Your task to perform on an android device: delete a single message in the gmail app Image 0: 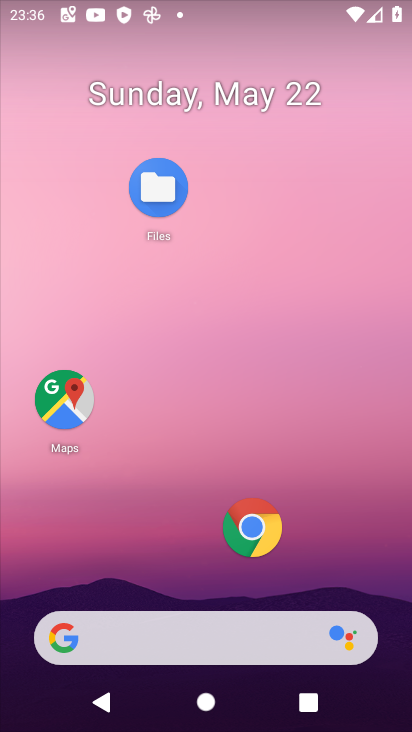
Step 0: drag from (317, 558) to (247, 259)
Your task to perform on an android device: delete a single message in the gmail app Image 1: 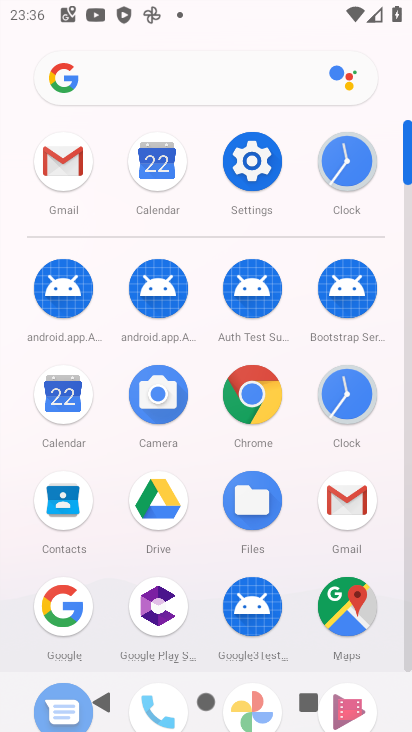
Step 1: click (59, 166)
Your task to perform on an android device: delete a single message in the gmail app Image 2: 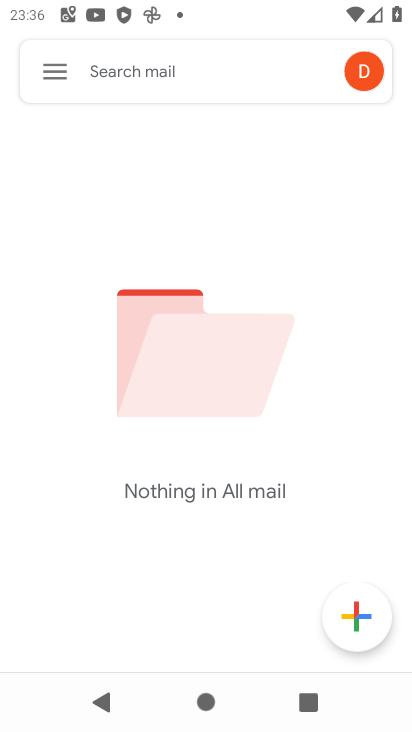
Step 2: click (60, 65)
Your task to perform on an android device: delete a single message in the gmail app Image 3: 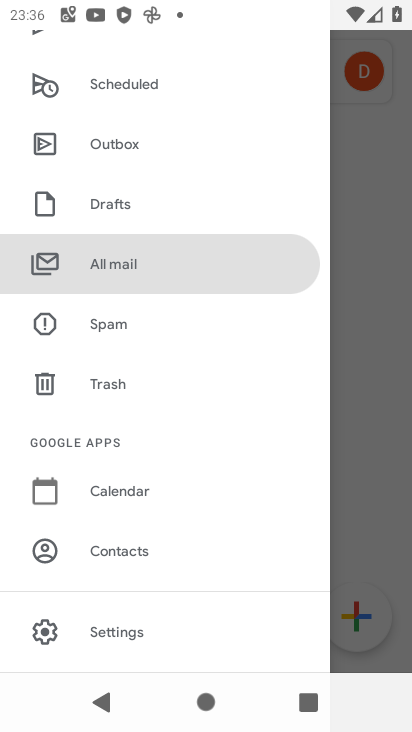
Step 3: click (152, 261)
Your task to perform on an android device: delete a single message in the gmail app Image 4: 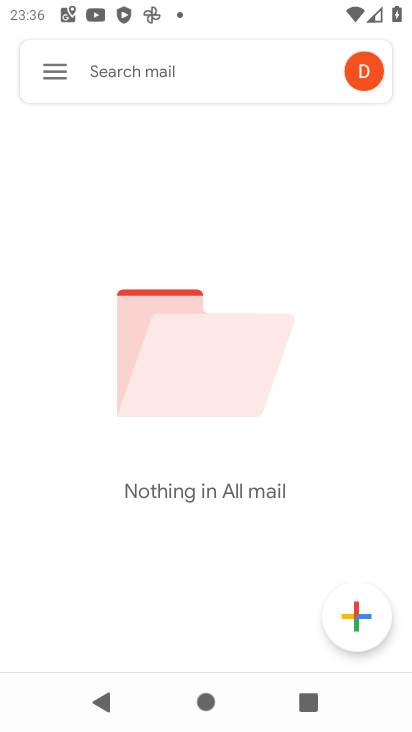
Step 4: task complete